Your task to perform on an android device: turn on translation in the chrome app Image 0: 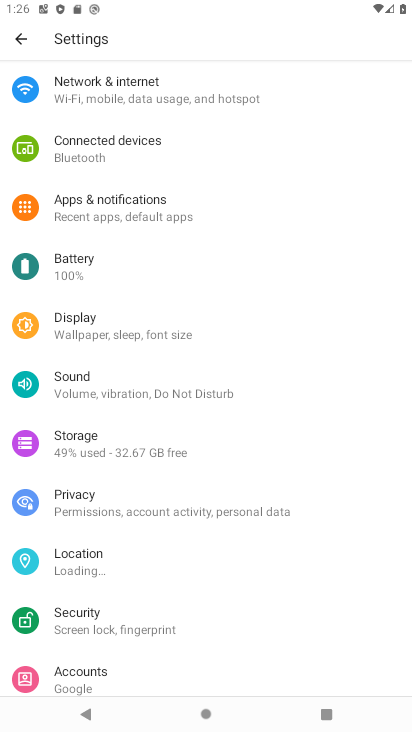
Step 0: press home button
Your task to perform on an android device: turn on translation in the chrome app Image 1: 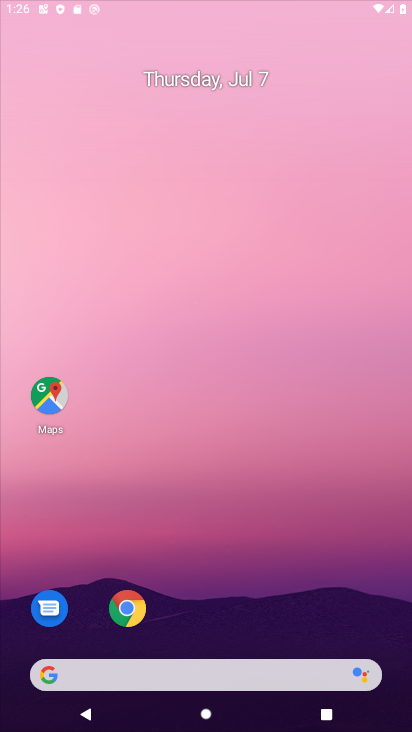
Step 1: drag from (267, 669) to (254, 10)
Your task to perform on an android device: turn on translation in the chrome app Image 2: 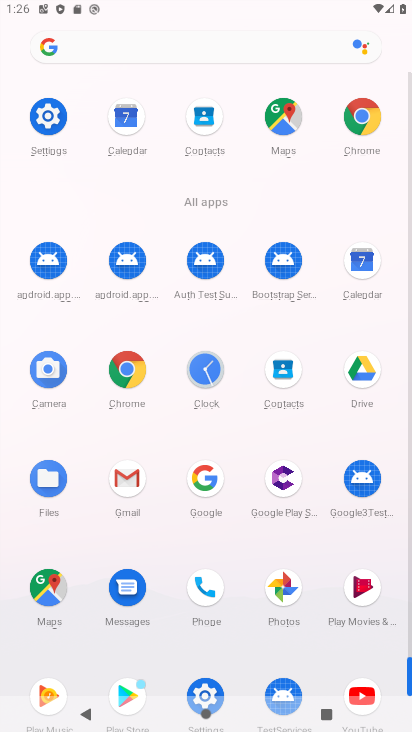
Step 2: click (134, 373)
Your task to perform on an android device: turn on translation in the chrome app Image 3: 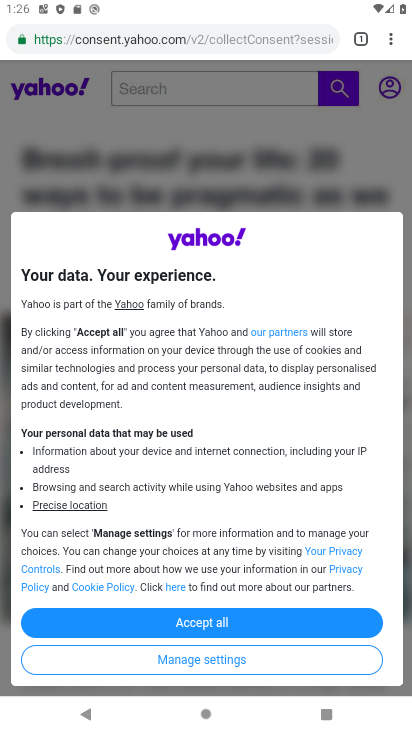
Step 3: click (393, 34)
Your task to perform on an android device: turn on translation in the chrome app Image 4: 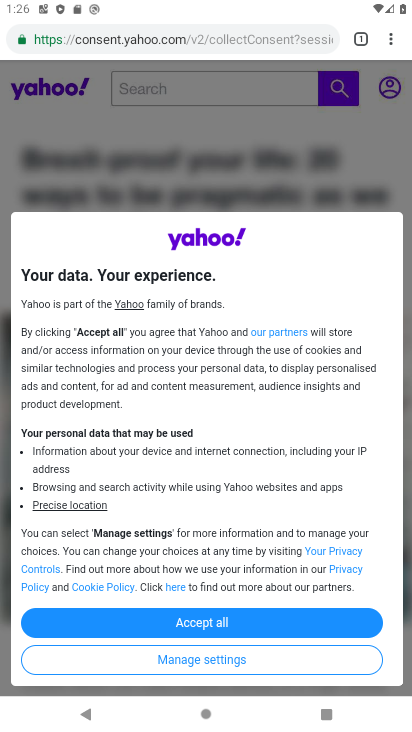
Step 4: drag from (392, 36) to (247, 472)
Your task to perform on an android device: turn on translation in the chrome app Image 5: 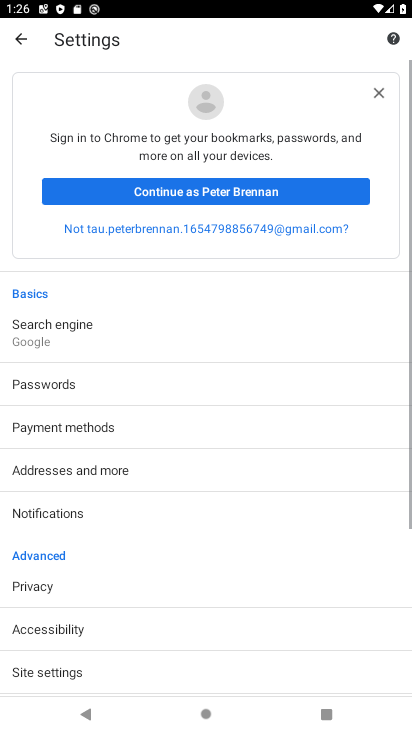
Step 5: drag from (280, 605) to (318, 260)
Your task to perform on an android device: turn on translation in the chrome app Image 6: 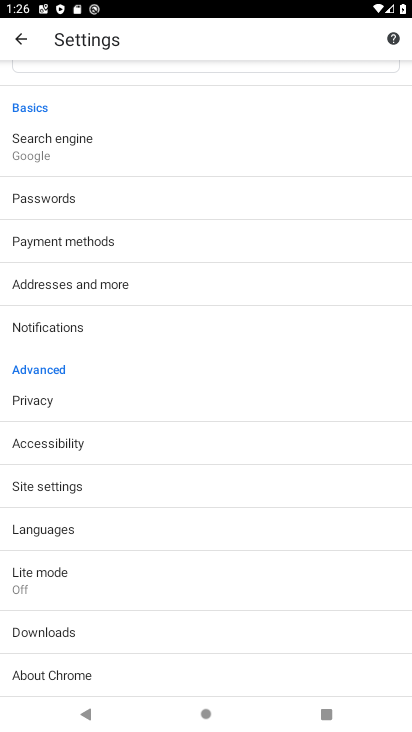
Step 6: click (99, 520)
Your task to perform on an android device: turn on translation in the chrome app Image 7: 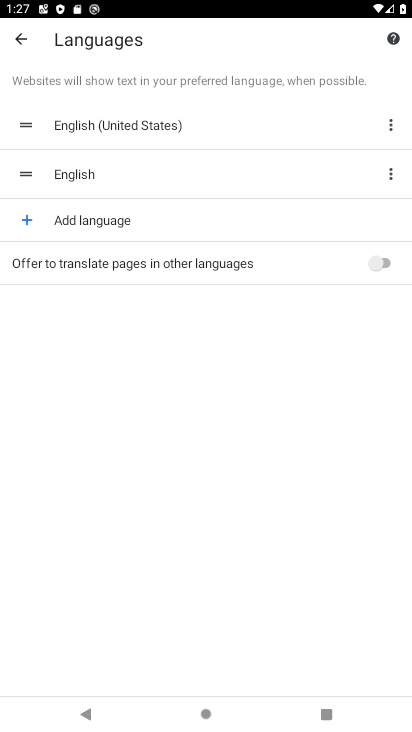
Step 7: click (389, 265)
Your task to perform on an android device: turn on translation in the chrome app Image 8: 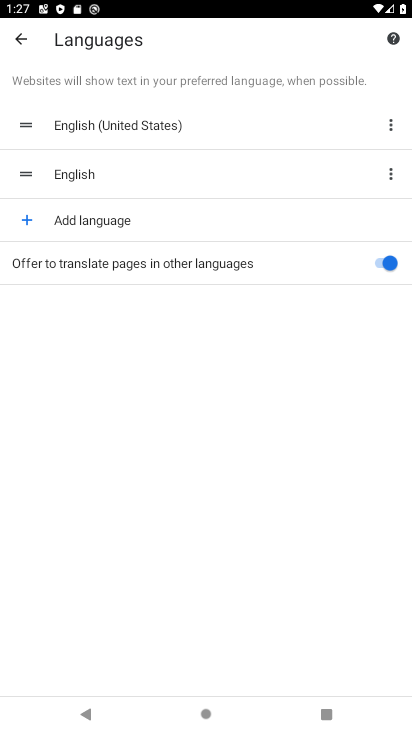
Step 8: task complete